Your task to perform on an android device: see creations saved in the google photos Image 0: 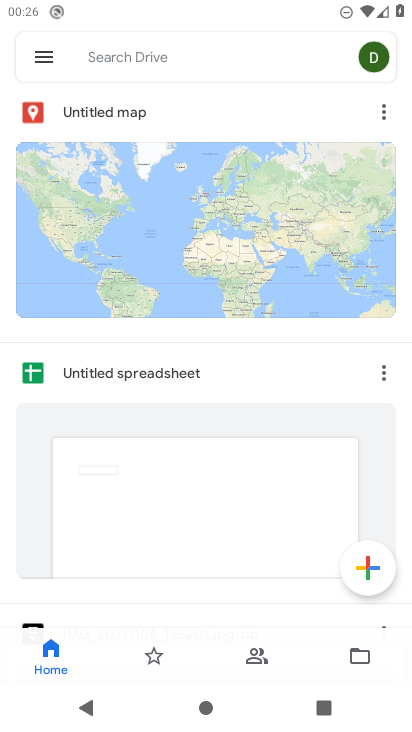
Step 0: press home button
Your task to perform on an android device: see creations saved in the google photos Image 1: 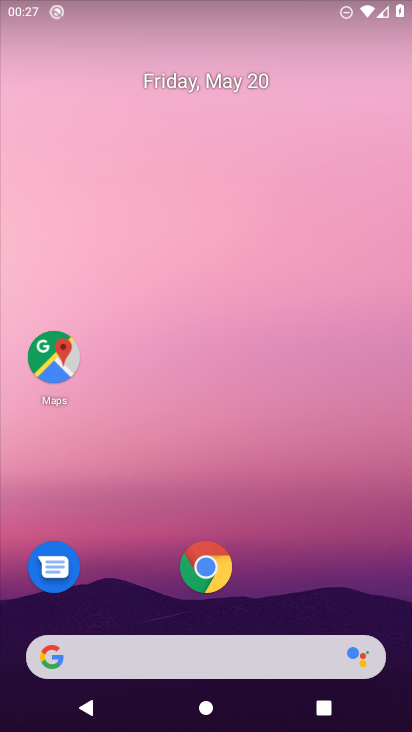
Step 1: drag from (250, 600) to (236, 121)
Your task to perform on an android device: see creations saved in the google photos Image 2: 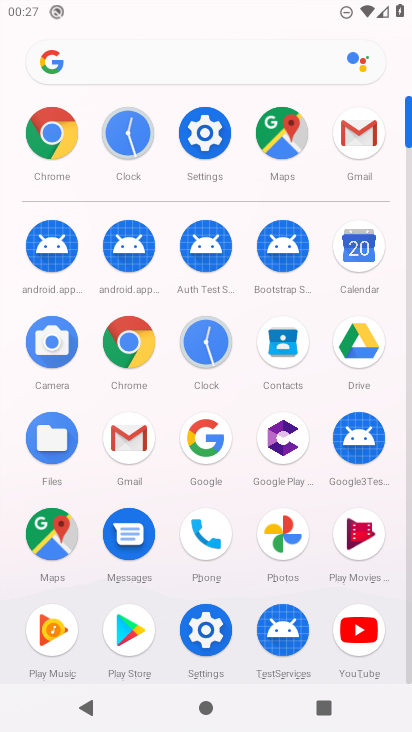
Step 2: click (278, 523)
Your task to perform on an android device: see creations saved in the google photos Image 3: 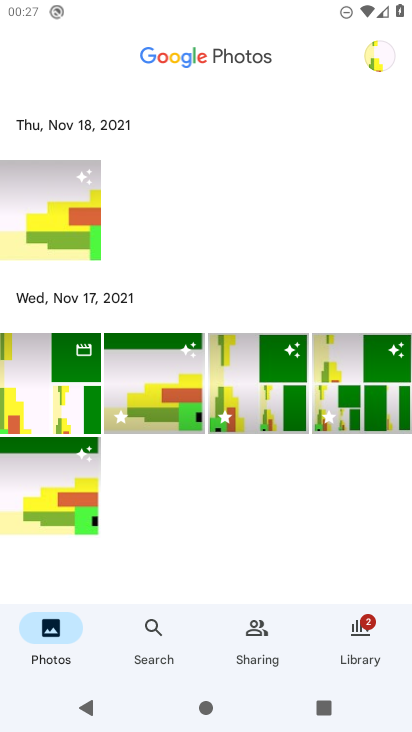
Step 3: click (145, 625)
Your task to perform on an android device: see creations saved in the google photos Image 4: 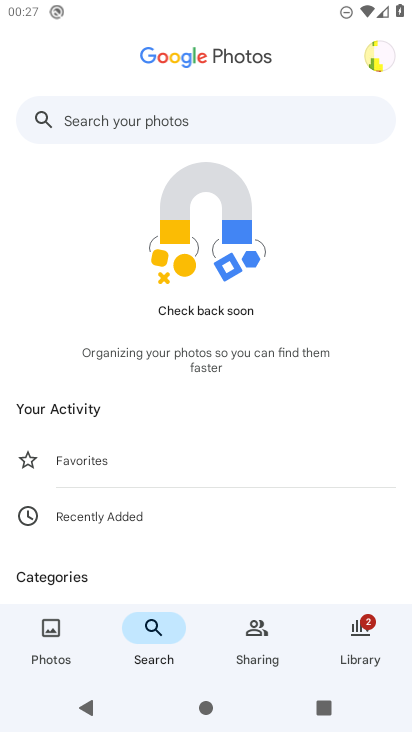
Step 4: drag from (183, 550) to (180, 150)
Your task to perform on an android device: see creations saved in the google photos Image 5: 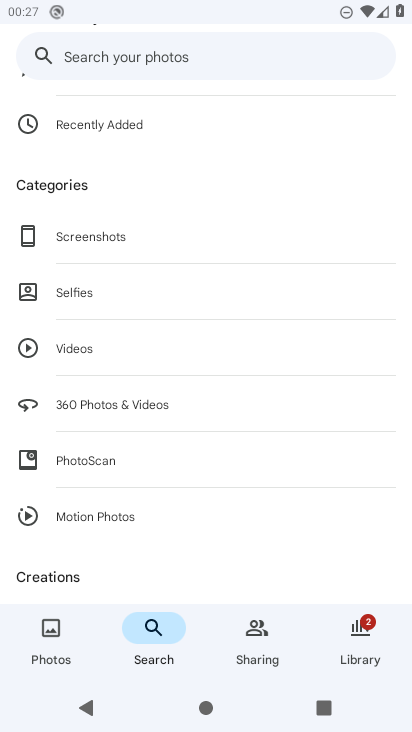
Step 5: drag from (158, 494) to (151, 89)
Your task to perform on an android device: see creations saved in the google photos Image 6: 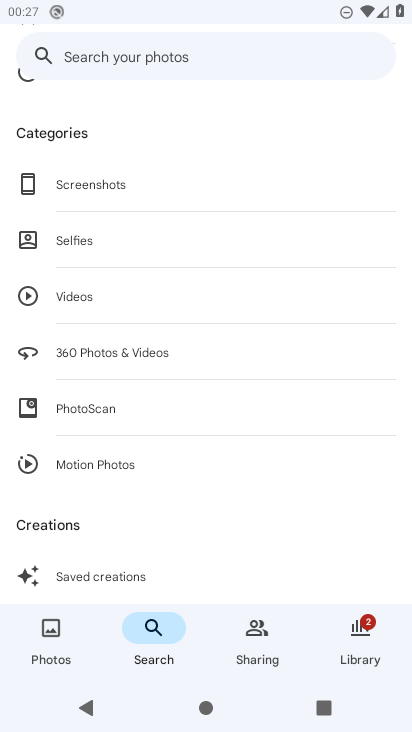
Step 6: click (170, 566)
Your task to perform on an android device: see creations saved in the google photos Image 7: 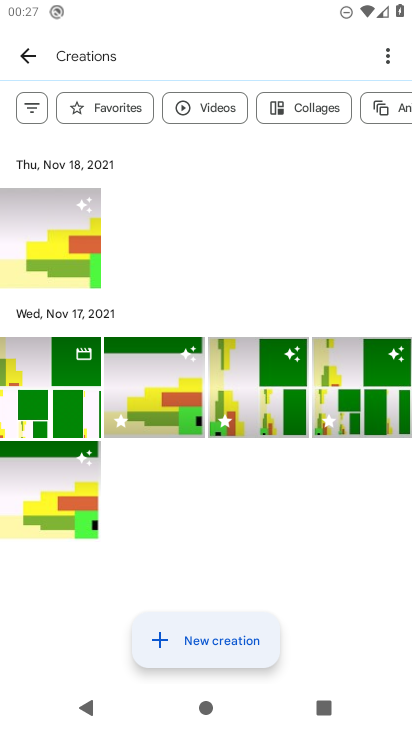
Step 7: task complete